Your task to perform on an android device: empty trash in google photos Image 0: 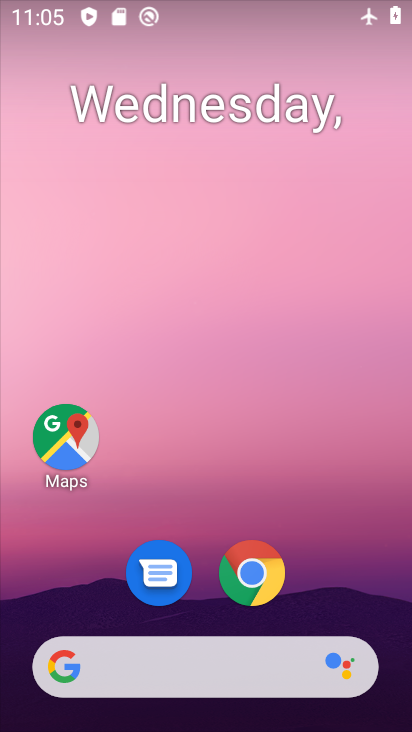
Step 0: drag from (386, 596) to (371, 218)
Your task to perform on an android device: empty trash in google photos Image 1: 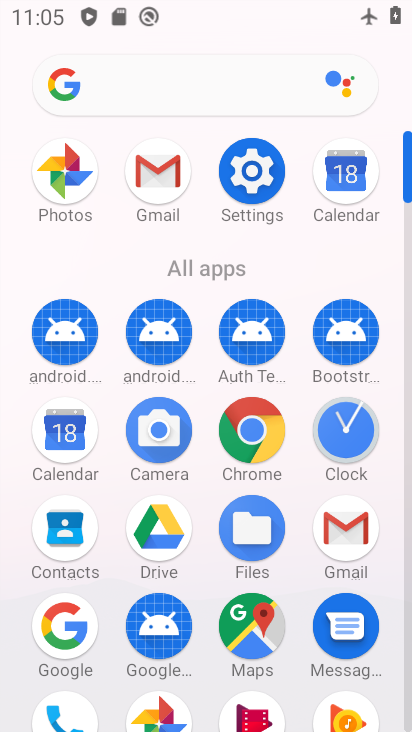
Step 1: drag from (291, 578) to (294, 249)
Your task to perform on an android device: empty trash in google photos Image 2: 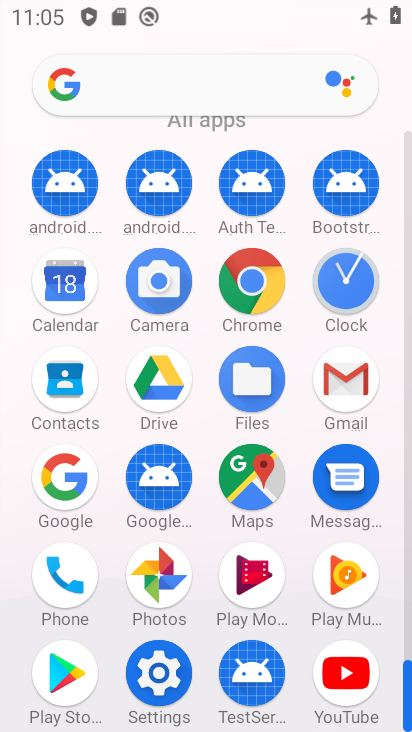
Step 2: click (157, 577)
Your task to perform on an android device: empty trash in google photos Image 3: 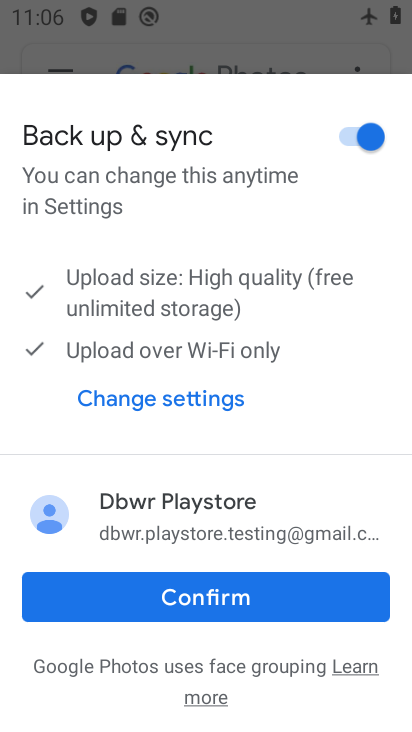
Step 3: click (347, 603)
Your task to perform on an android device: empty trash in google photos Image 4: 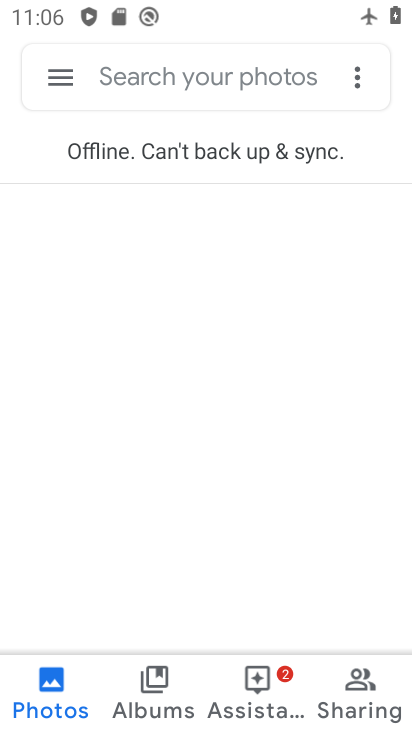
Step 4: click (64, 80)
Your task to perform on an android device: empty trash in google photos Image 5: 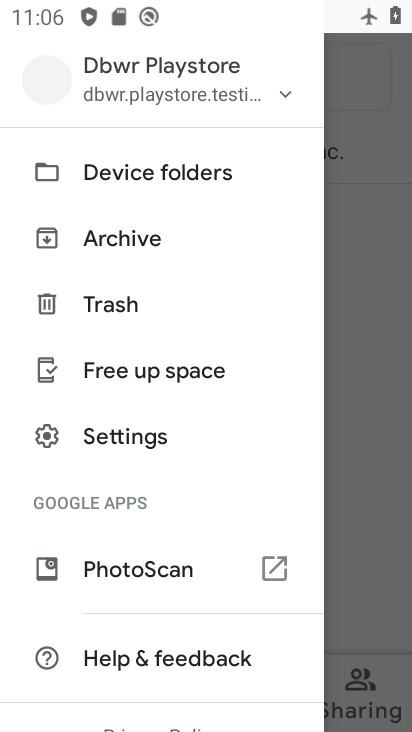
Step 5: click (151, 311)
Your task to perform on an android device: empty trash in google photos Image 6: 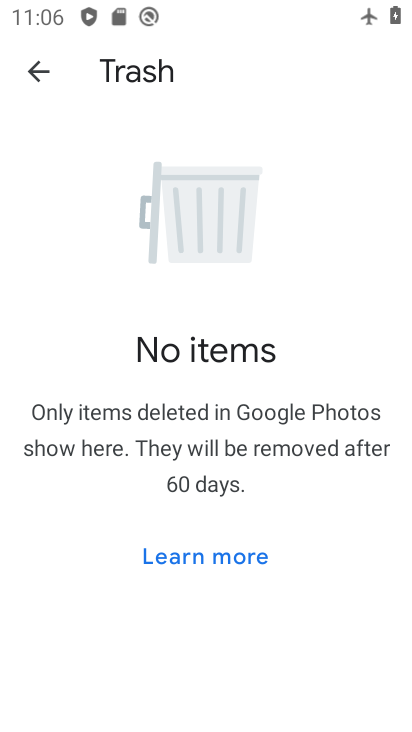
Step 6: task complete